Your task to perform on an android device: toggle improve location accuracy Image 0: 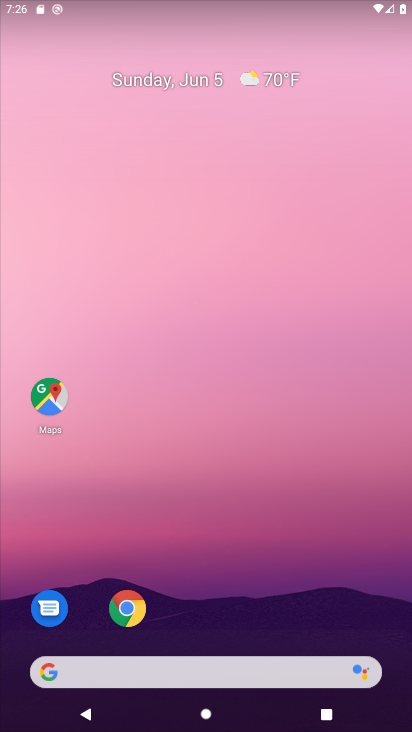
Step 0: drag from (317, 488) to (323, 135)
Your task to perform on an android device: toggle improve location accuracy Image 1: 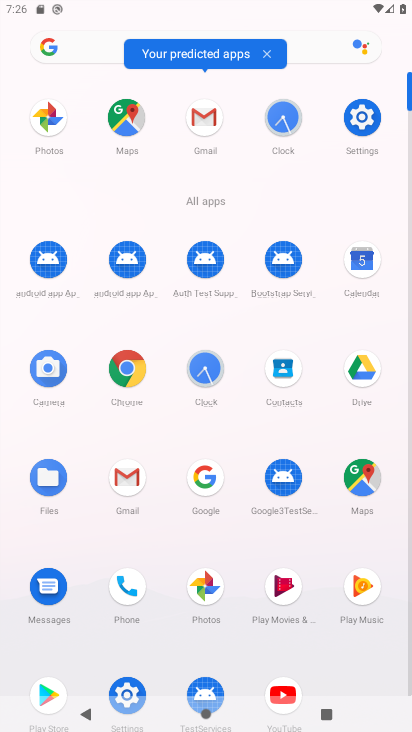
Step 1: click (371, 129)
Your task to perform on an android device: toggle improve location accuracy Image 2: 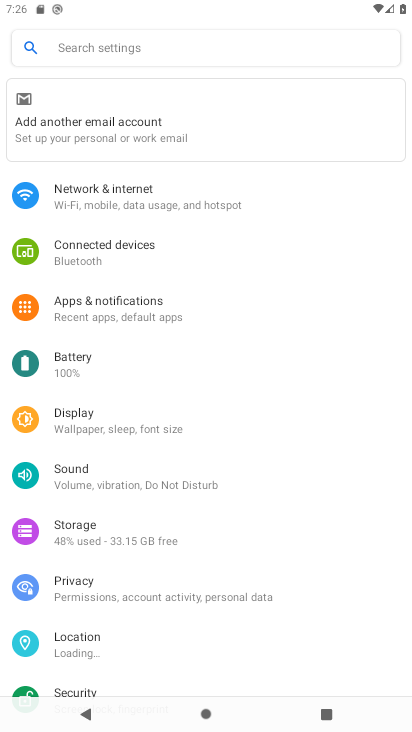
Step 2: click (98, 651)
Your task to perform on an android device: toggle improve location accuracy Image 3: 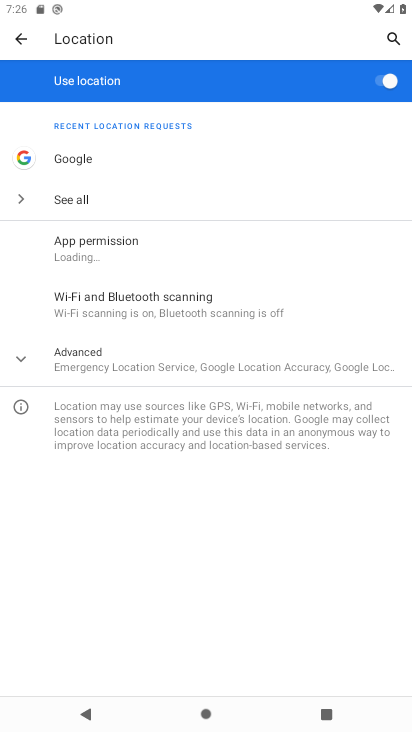
Step 3: click (161, 365)
Your task to perform on an android device: toggle improve location accuracy Image 4: 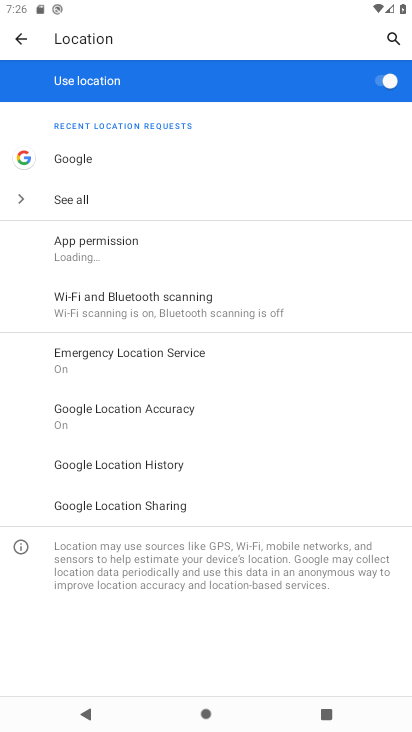
Step 4: click (142, 408)
Your task to perform on an android device: toggle improve location accuracy Image 5: 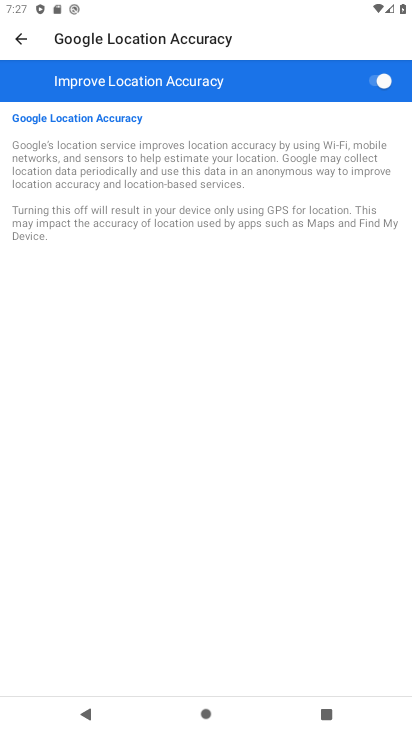
Step 5: click (381, 79)
Your task to perform on an android device: toggle improve location accuracy Image 6: 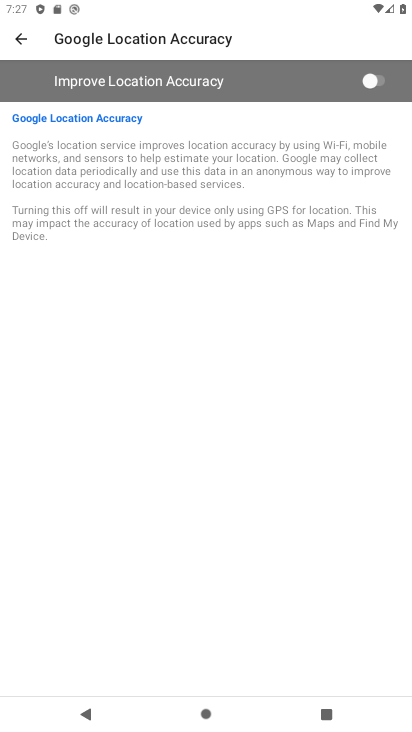
Step 6: task complete